Your task to perform on an android device: Open settings Image 0: 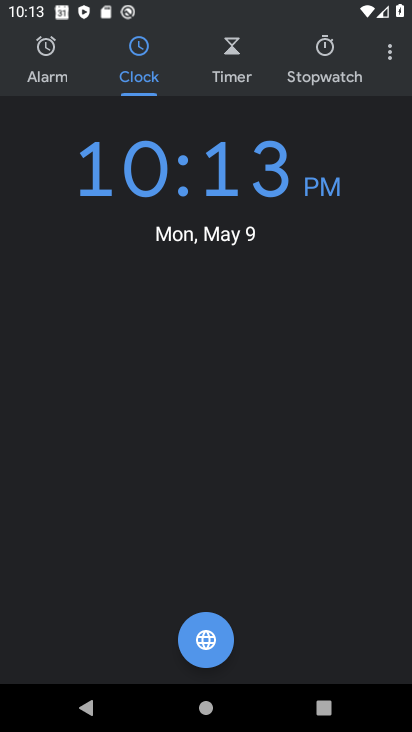
Step 0: press home button
Your task to perform on an android device: Open settings Image 1: 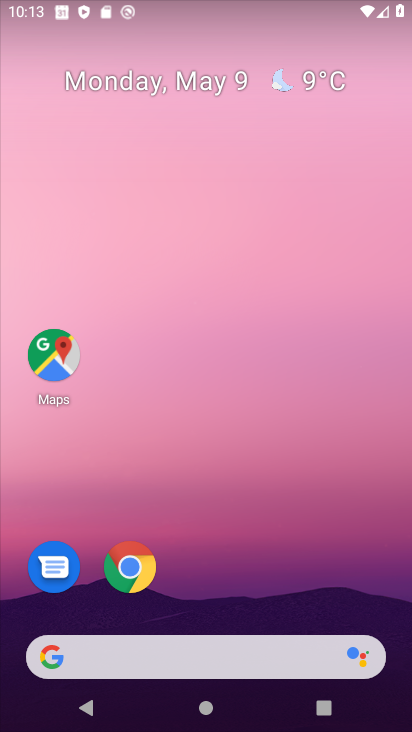
Step 1: drag from (206, 612) to (257, 151)
Your task to perform on an android device: Open settings Image 2: 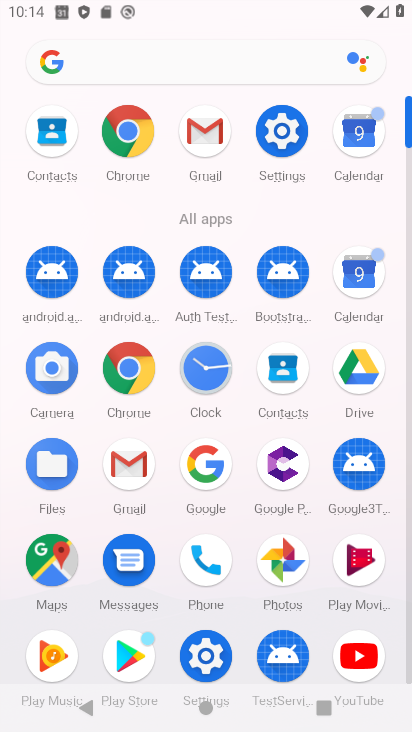
Step 2: click (282, 131)
Your task to perform on an android device: Open settings Image 3: 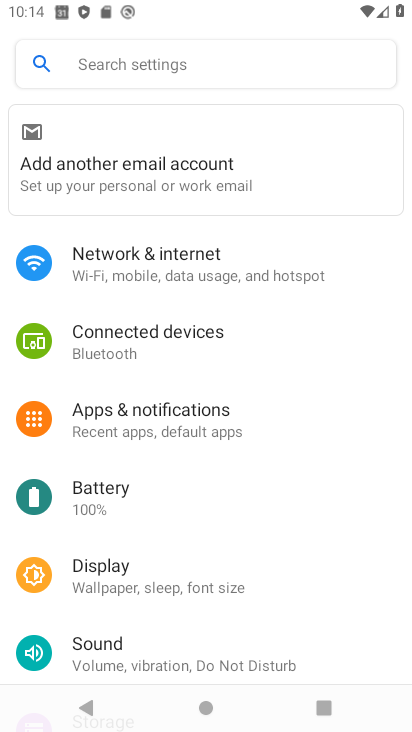
Step 3: task complete